Your task to perform on an android device: Search for Italian restaurants on Maps Image 0: 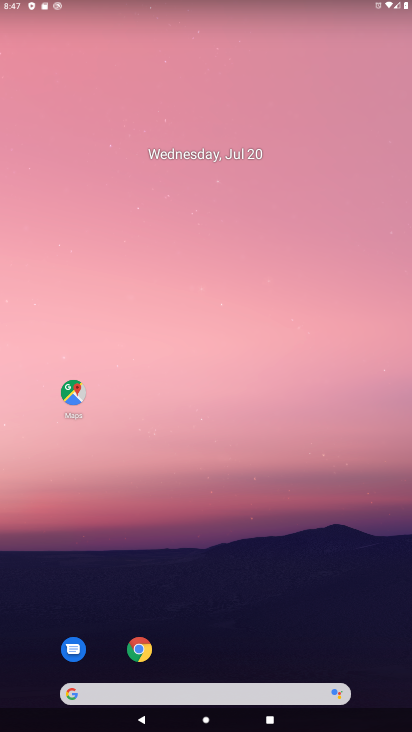
Step 0: drag from (219, 675) to (219, 305)
Your task to perform on an android device: Search for Italian restaurants on Maps Image 1: 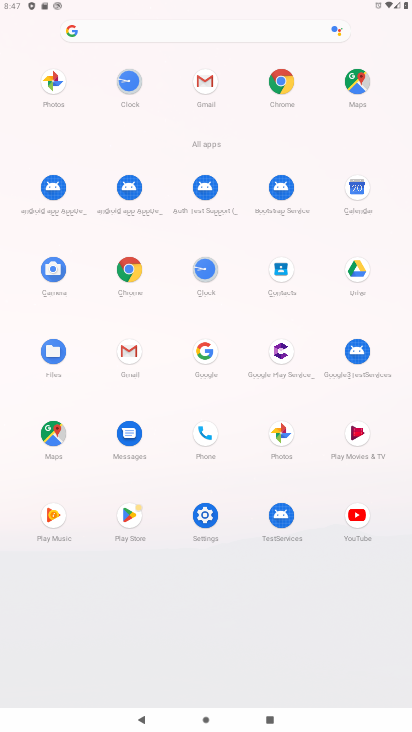
Step 1: click (54, 442)
Your task to perform on an android device: Search for Italian restaurants on Maps Image 2: 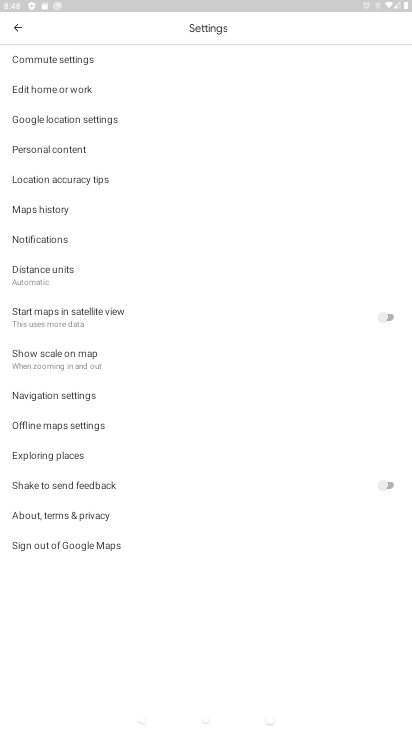
Step 2: click (21, 24)
Your task to perform on an android device: Search for Italian restaurants on Maps Image 3: 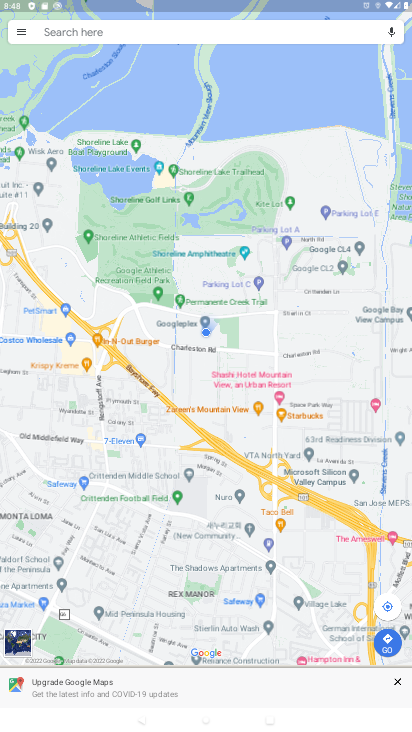
Step 3: click (78, 37)
Your task to perform on an android device: Search for Italian restaurants on Maps Image 4: 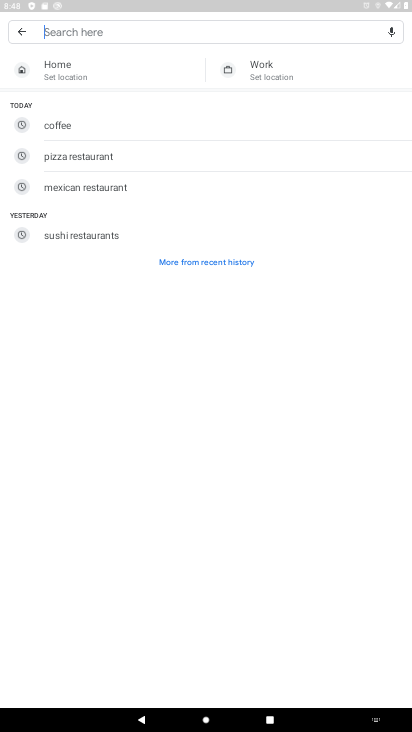
Step 4: type "italian restaurants"
Your task to perform on an android device: Search for Italian restaurants on Maps Image 5: 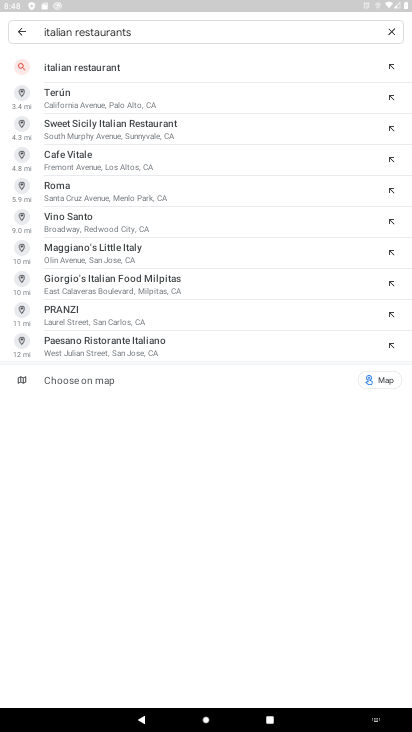
Step 5: click (96, 66)
Your task to perform on an android device: Search for Italian restaurants on Maps Image 6: 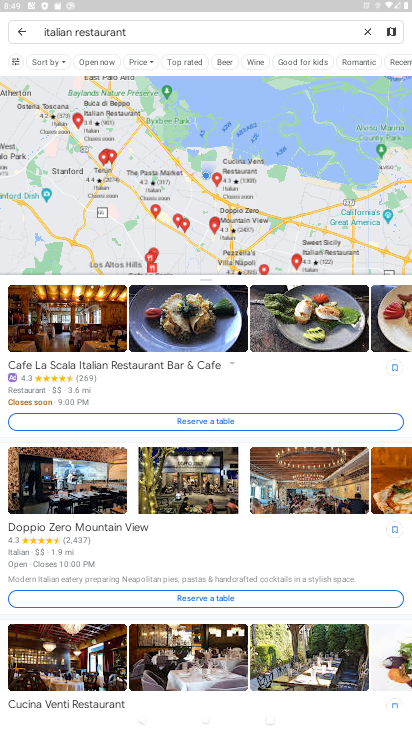
Step 6: task complete